Your task to perform on an android device: change the clock style Image 0: 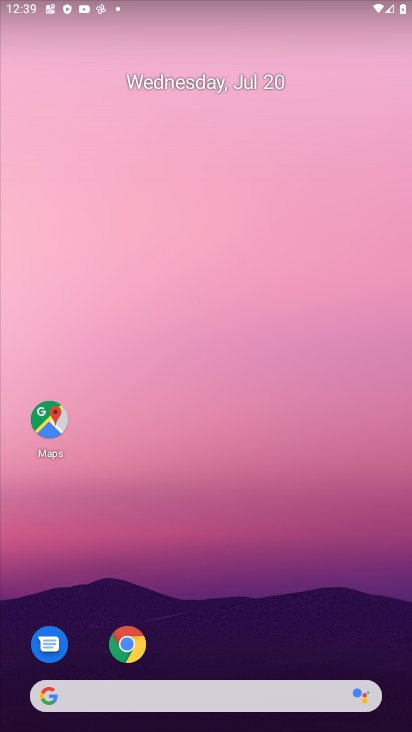
Step 0: press home button
Your task to perform on an android device: change the clock style Image 1: 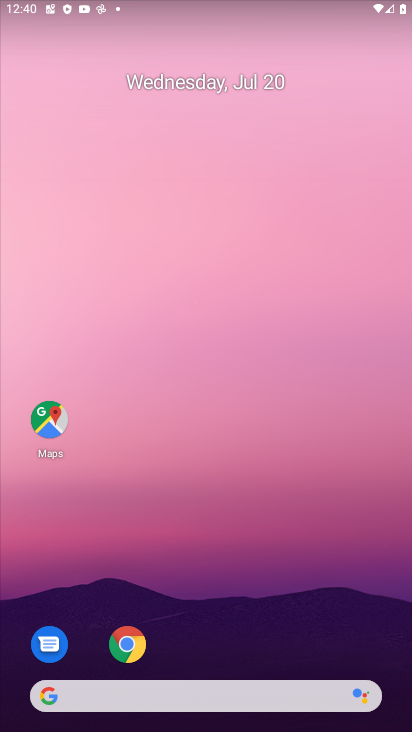
Step 1: press home button
Your task to perform on an android device: change the clock style Image 2: 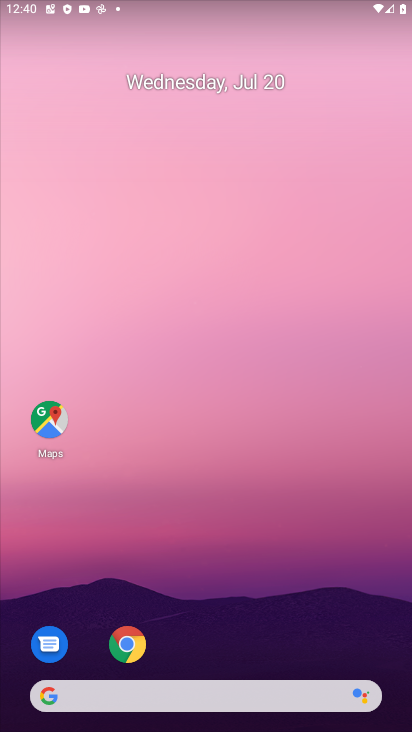
Step 2: drag from (291, 606) to (283, 292)
Your task to perform on an android device: change the clock style Image 3: 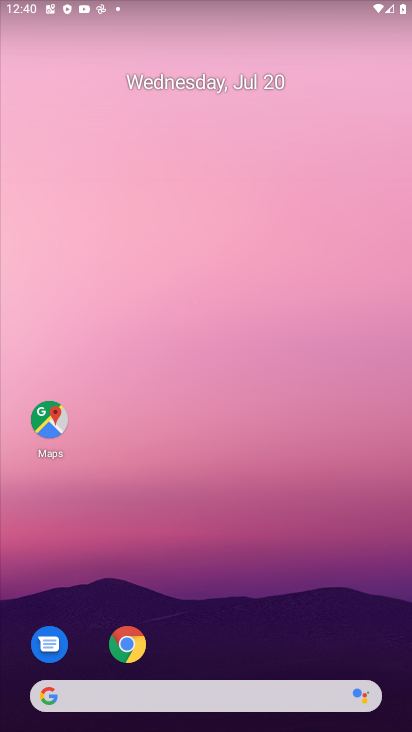
Step 3: drag from (304, 731) to (298, 106)
Your task to perform on an android device: change the clock style Image 4: 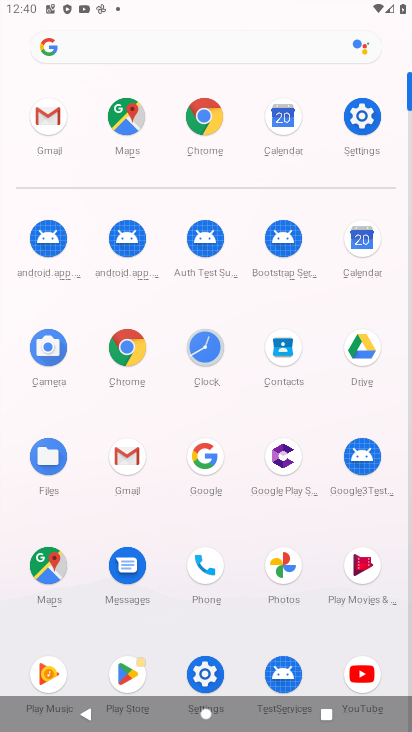
Step 4: click (219, 371)
Your task to perform on an android device: change the clock style Image 5: 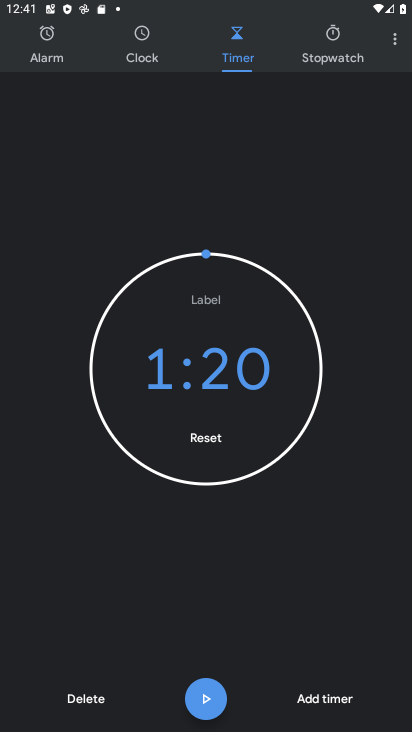
Step 5: click (398, 44)
Your task to perform on an android device: change the clock style Image 6: 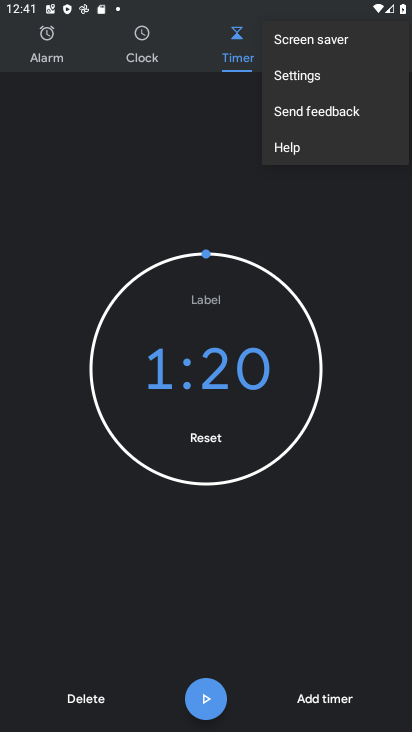
Step 6: click (293, 86)
Your task to perform on an android device: change the clock style Image 7: 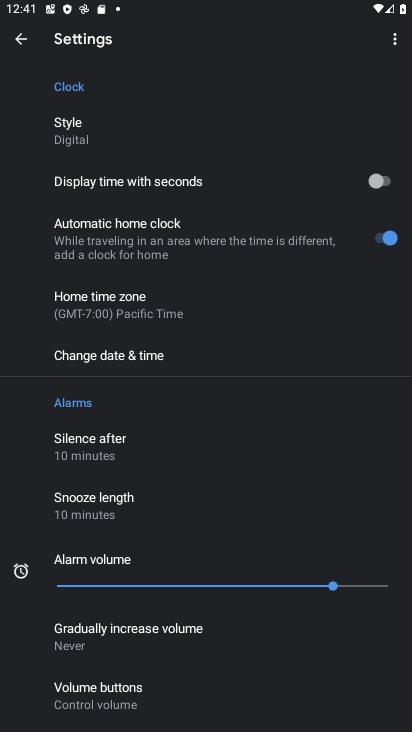
Step 7: click (88, 151)
Your task to perform on an android device: change the clock style Image 8: 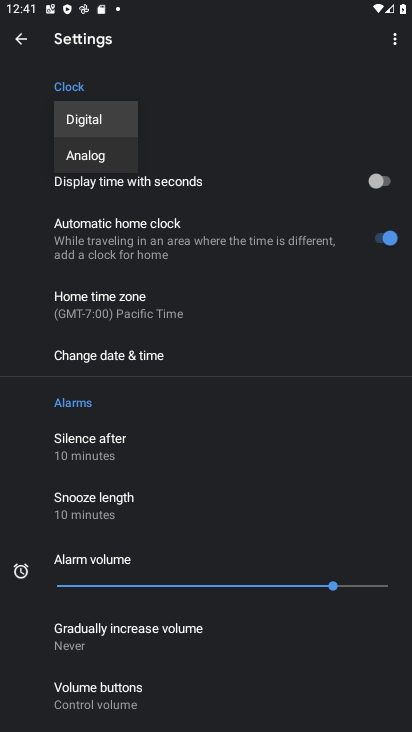
Step 8: click (88, 151)
Your task to perform on an android device: change the clock style Image 9: 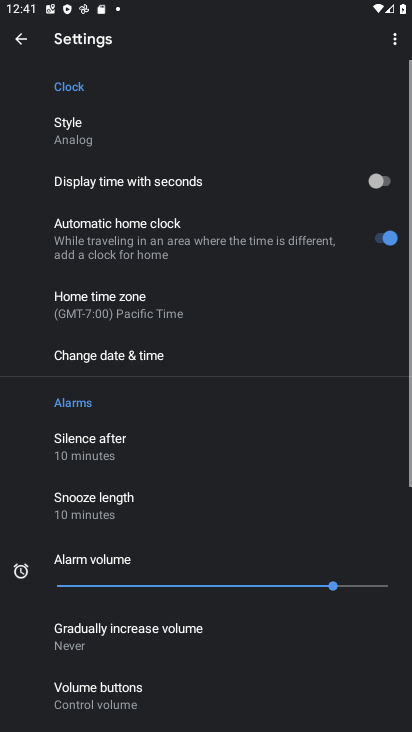
Step 9: task complete